Your task to perform on an android device: stop showing notifications on the lock screen Image 0: 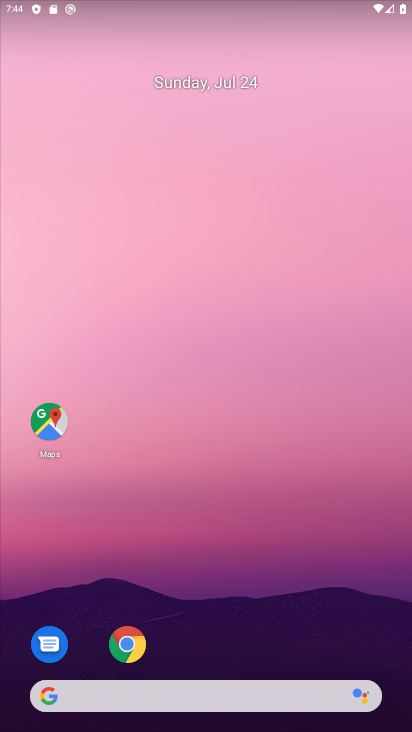
Step 0: drag from (276, 582) to (339, 67)
Your task to perform on an android device: stop showing notifications on the lock screen Image 1: 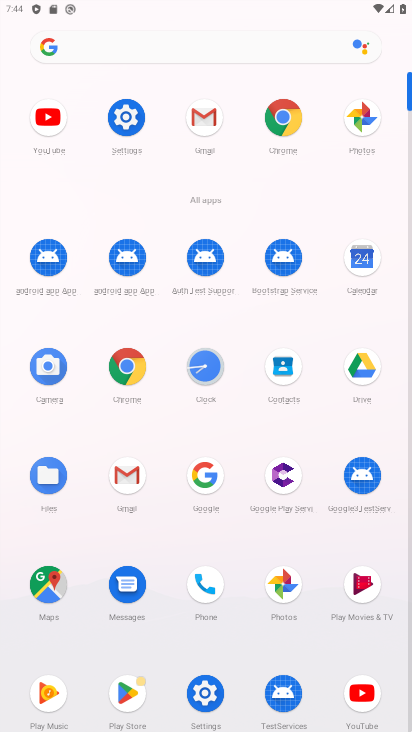
Step 1: click (126, 125)
Your task to perform on an android device: stop showing notifications on the lock screen Image 2: 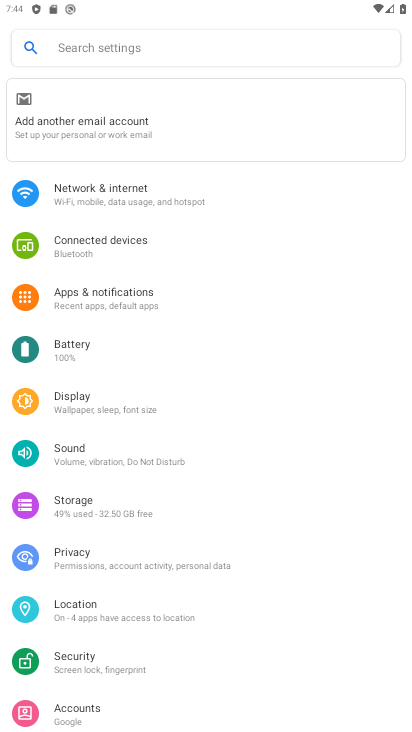
Step 2: click (128, 294)
Your task to perform on an android device: stop showing notifications on the lock screen Image 3: 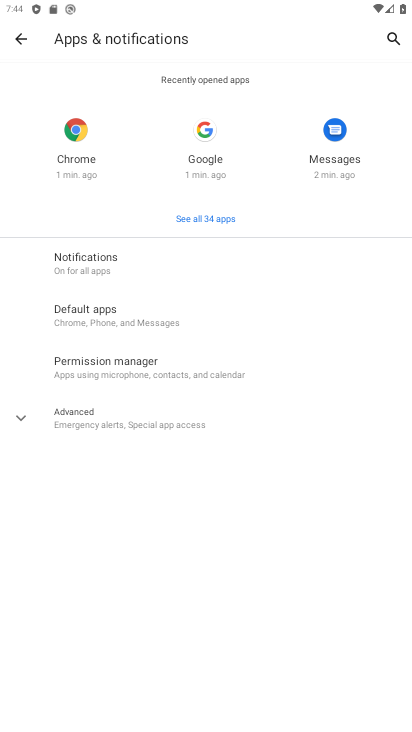
Step 3: click (83, 265)
Your task to perform on an android device: stop showing notifications on the lock screen Image 4: 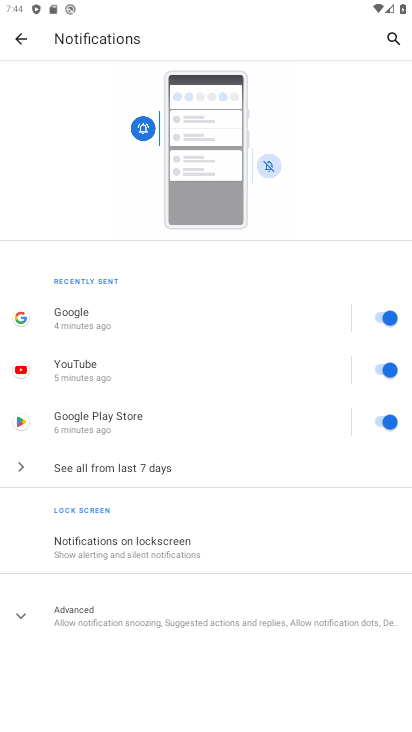
Step 4: click (131, 562)
Your task to perform on an android device: stop showing notifications on the lock screen Image 5: 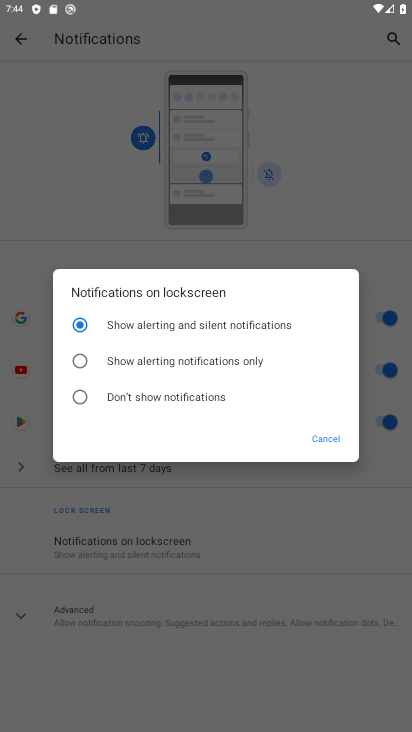
Step 5: click (99, 393)
Your task to perform on an android device: stop showing notifications on the lock screen Image 6: 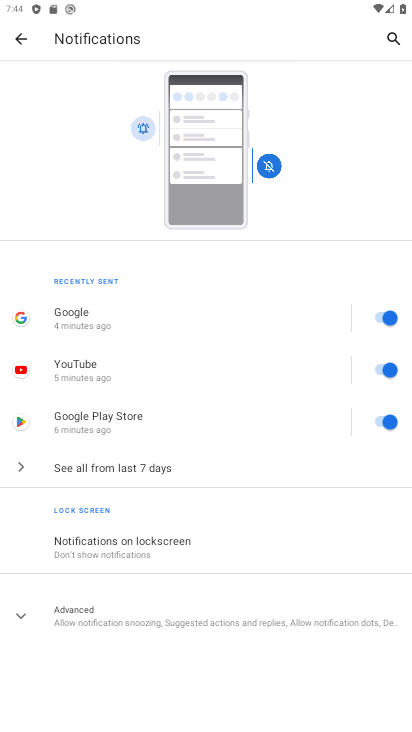
Step 6: task complete